Your task to perform on an android device: see sites visited before in the chrome app Image 0: 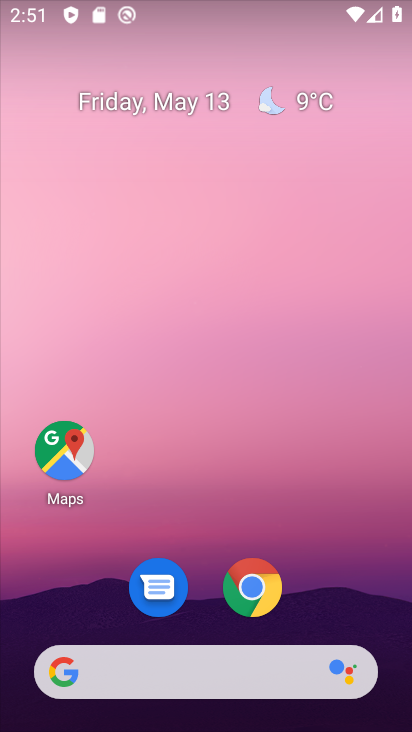
Step 0: click (258, 597)
Your task to perform on an android device: see sites visited before in the chrome app Image 1: 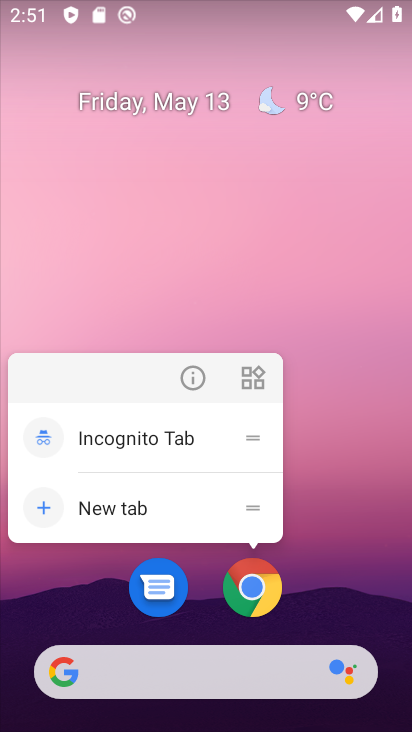
Step 1: click (258, 597)
Your task to perform on an android device: see sites visited before in the chrome app Image 2: 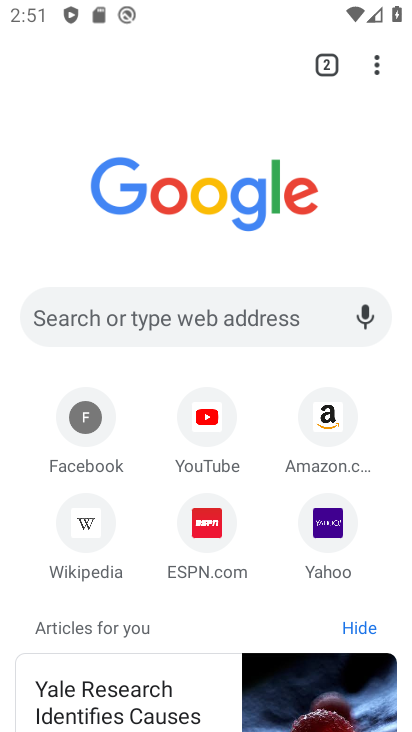
Step 2: drag from (378, 77) to (254, 319)
Your task to perform on an android device: see sites visited before in the chrome app Image 3: 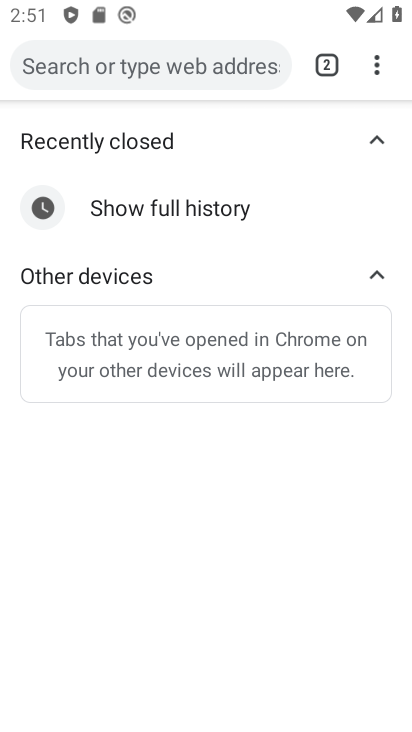
Step 3: click (241, 212)
Your task to perform on an android device: see sites visited before in the chrome app Image 4: 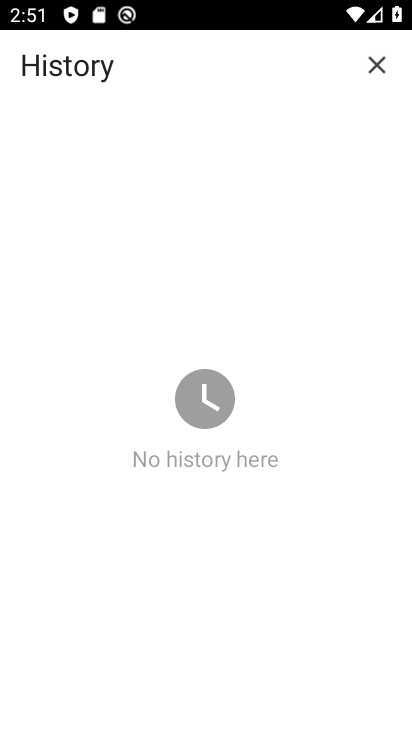
Step 4: task complete